Your task to perform on an android device: Open maps Image 0: 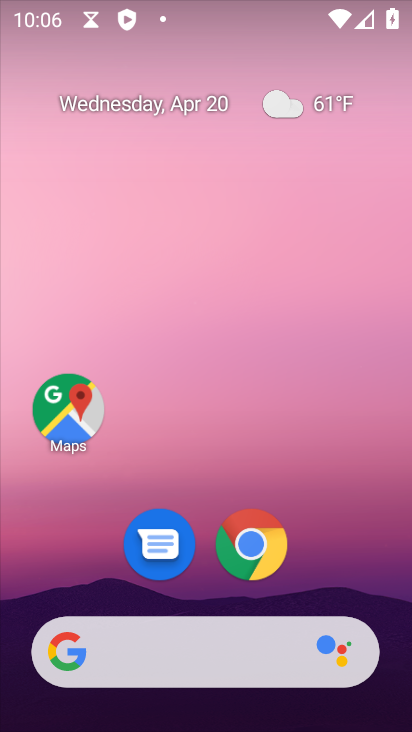
Step 0: drag from (167, 659) to (256, 21)
Your task to perform on an android device: Open maps Image 1: 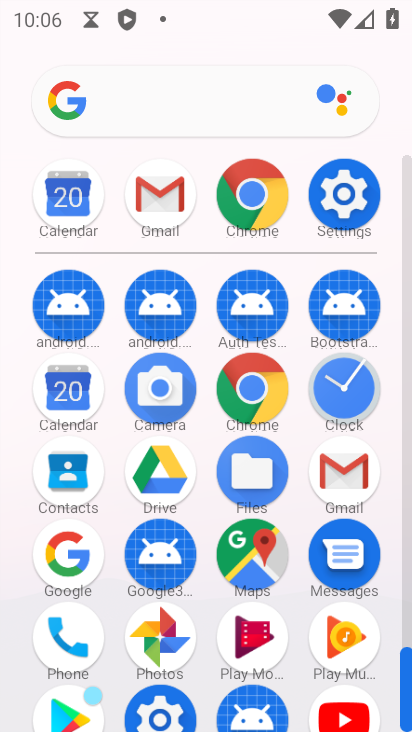
Step 1: click (244, 568)
Your task to perform on an android device: Open maps Image 2: 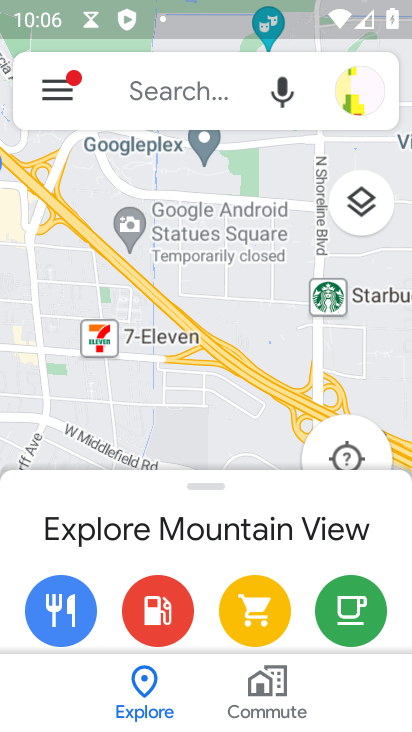
Step 2: task complete